Your task to perform on an android device: Open Android settings Image 0: 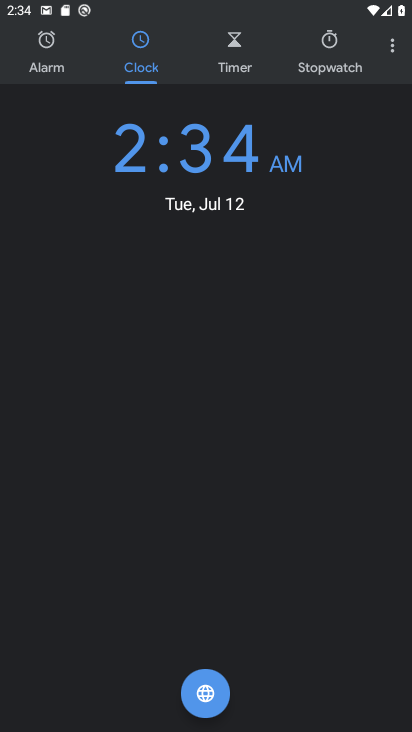
Step 0: press home button
Your task to perform on an android device: Open Android settings Image 1: 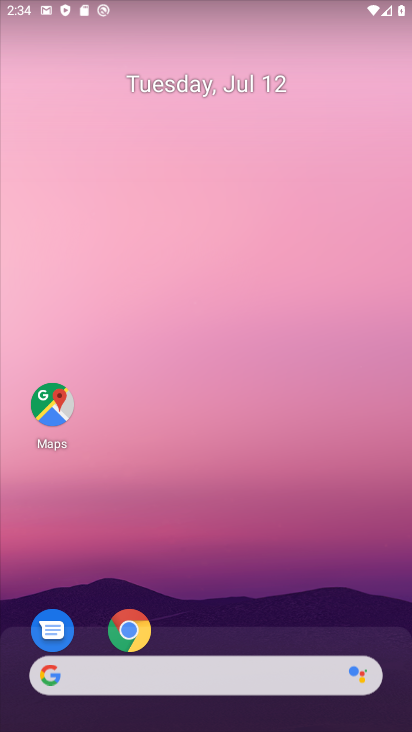
Step 1: drag from (174, 335) to (208, 7)
Your task to perform on an android device: Open Android settings Image 2: 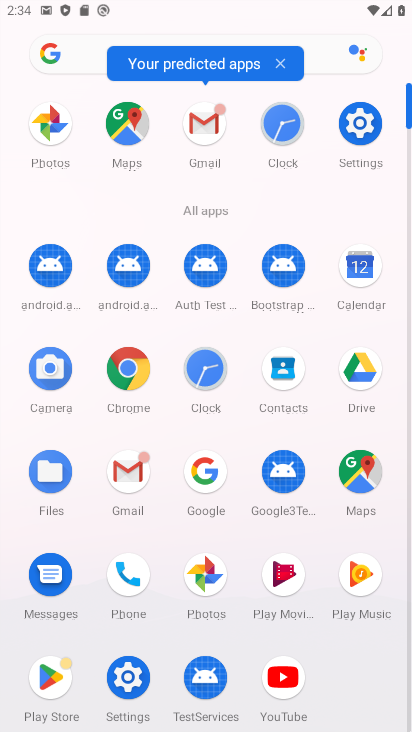
Step 2: click (360, 119)
Your task to perform on an android device: Open Android settings Image 3: 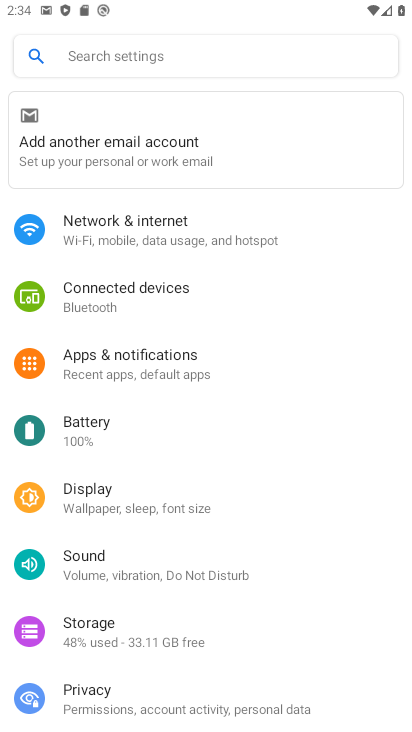
Step 3: drag from (170, 678) to (181, 21)
Your task to perform on an android device: Open Android settings Image 4: 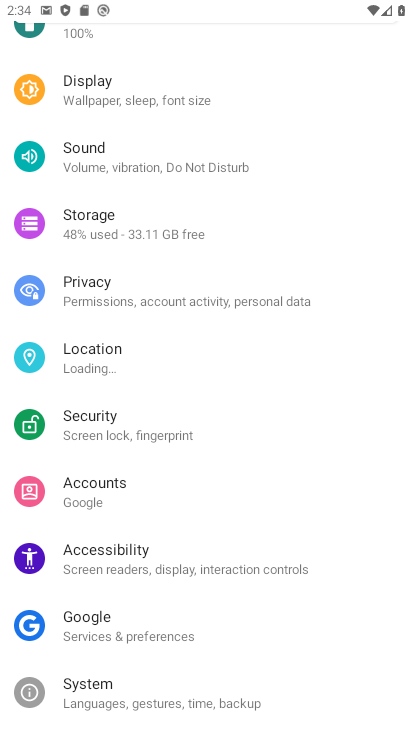
Step 4: drag from (160, 695) to (164, 98)
Your task to perform on an android device: Open Android settings Image 5: 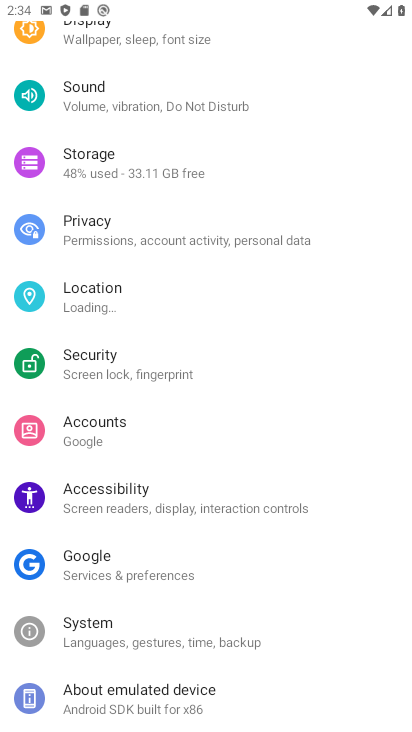
Step 5: click (164, 706)
Your task to perform on an android device: Open Android settings Image 6: 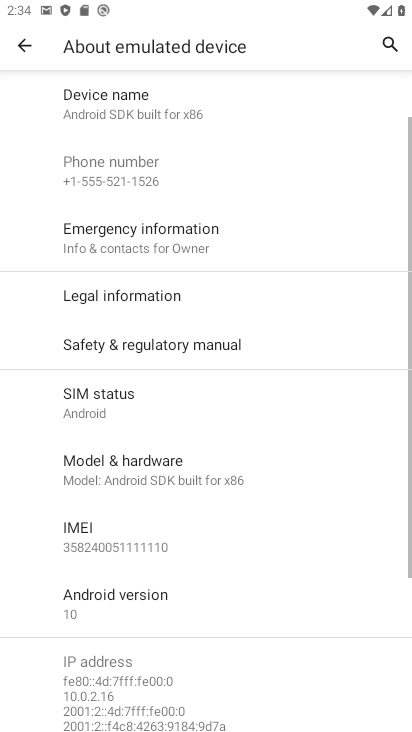
Step 6: task complete